Your task to perform on an android device: Open Maps and search for coffee Image 0: 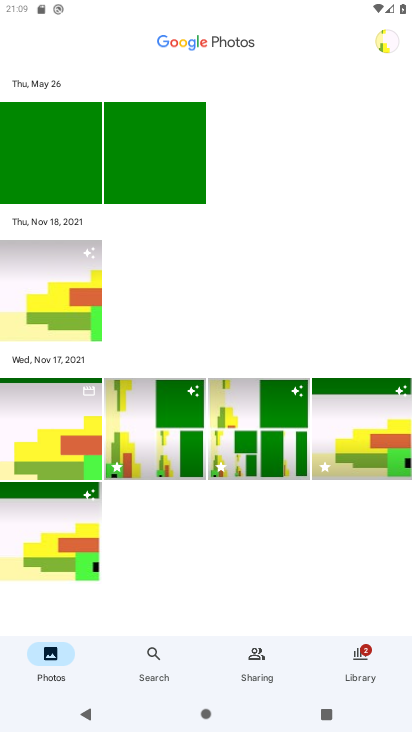
Step 0: press home button
Your task to perform on an android device: Open Maps and search for coffee Image 1: 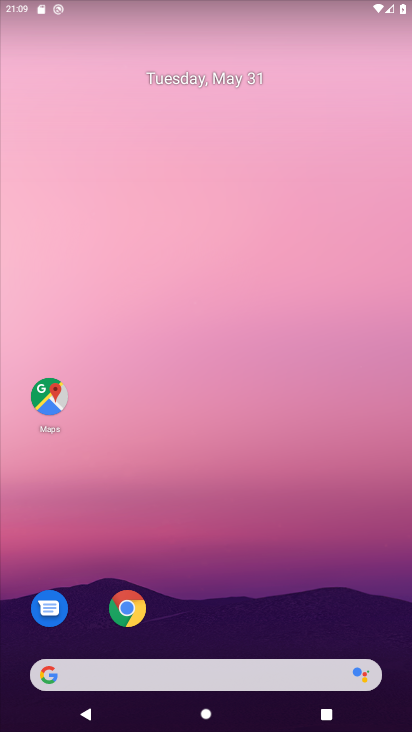
Step 1: click (46, 397)
Your task to perform on an android device: Open Maps and search for coffee Image 2: 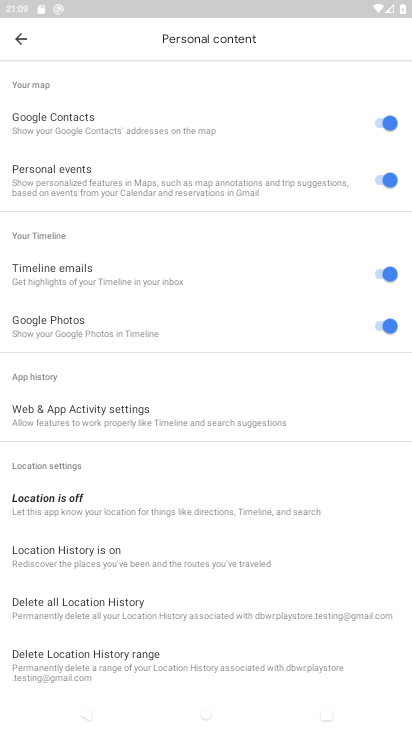
Step 2: click (20, 43)
Your task to perform on an android device: Open Maps and search for coffee Image 3: 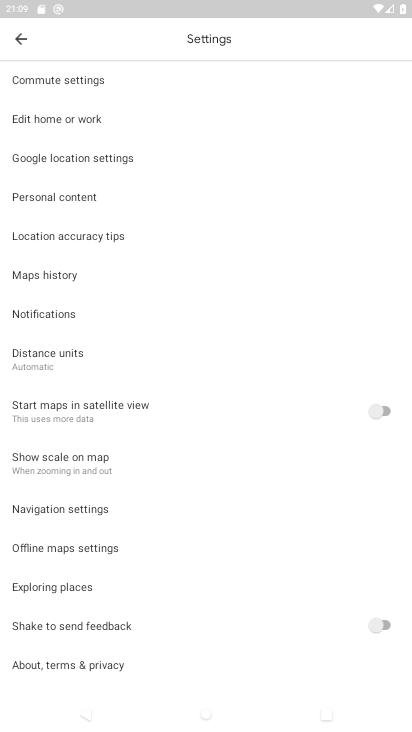
Step 3: click (20, 43)
Your task to perform on an android device: Open Maps and search for coffee Image 4: 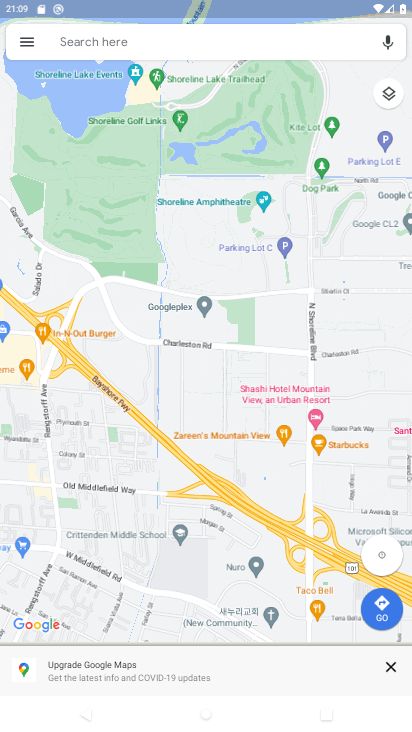
Step 4: click (99, 36)
Your task to perform on an android device: Open Maps and search for coffee Image 5: 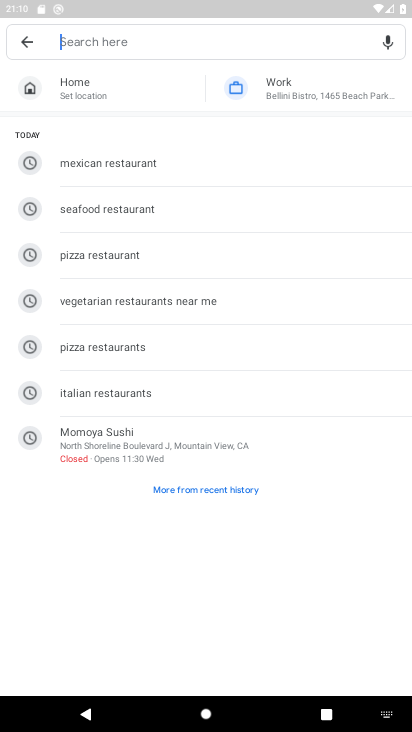
Step 5: type "coffee"
Your task to perform on an android device: Open Maps and search for coffee Image 6: 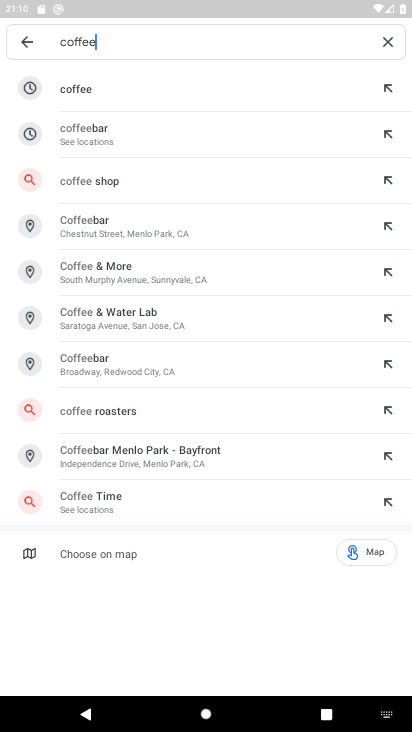
Step 6: click (79, 88)
Your task to perform on an android device: Open Maps and search for coffee Image 7: 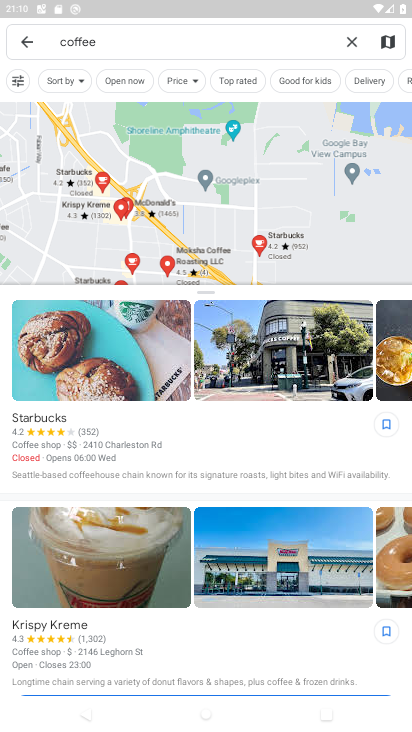
Step 7: task complete